Your task to perform on an android device: Search for sushi restaurants on Maps Image 0: 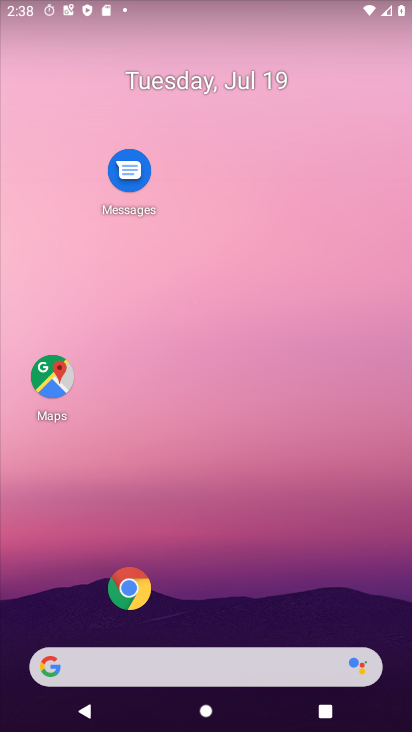
Step 0: click (66, 388)
Your task to perform on an android device: Search for sushi restaurants on Maps Image 1: 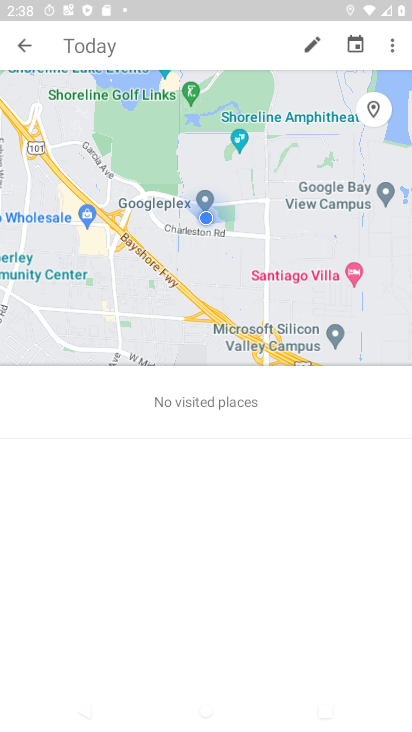
Step 1: click (128, 39)
Your task to perform on an android device: Search for sushi restaurants on Maps Image 2: 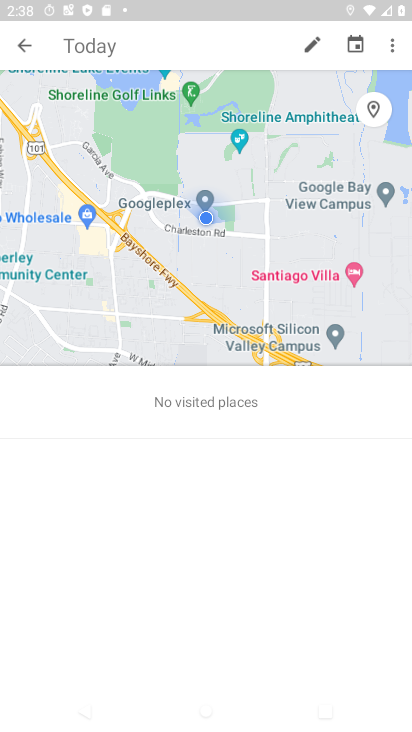
Step 2: click (21, 54)
Your task to perform on an android device: Search for sushi restaurants on Maps Image 3: 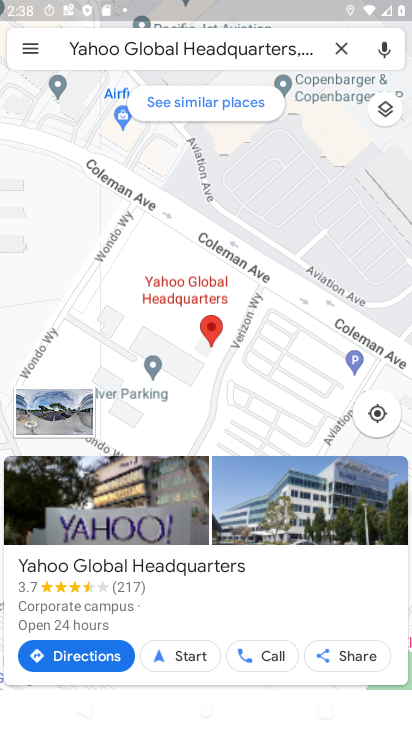
Step 3: click (347, 44)
Your task to perform on an android device: Search for sushi restaurants on Maps Image 4: 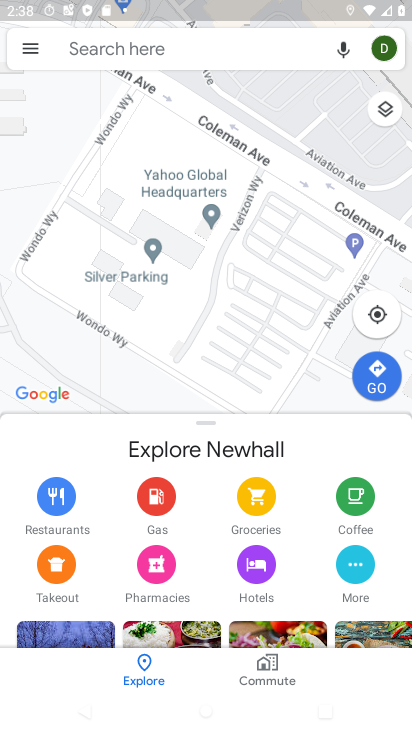
Step 4: click (96, 52)
Your task to perform on an android device: Search for sushi restaurants on Maps Image 5: 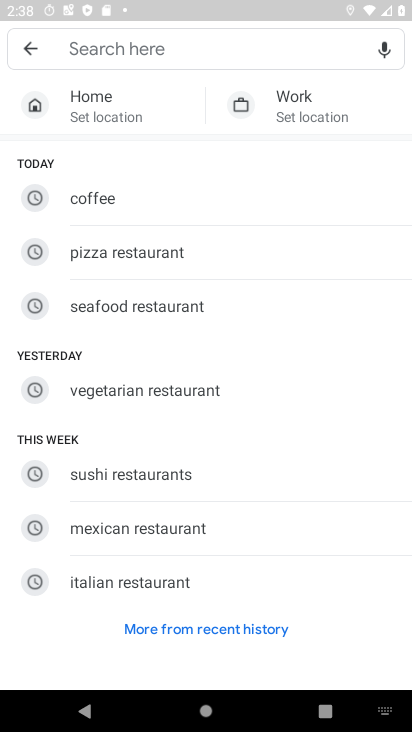
Step 5: click (127, 471)
Your task to perform on an android device: Search for sushi restaurants on Maps Image 6: 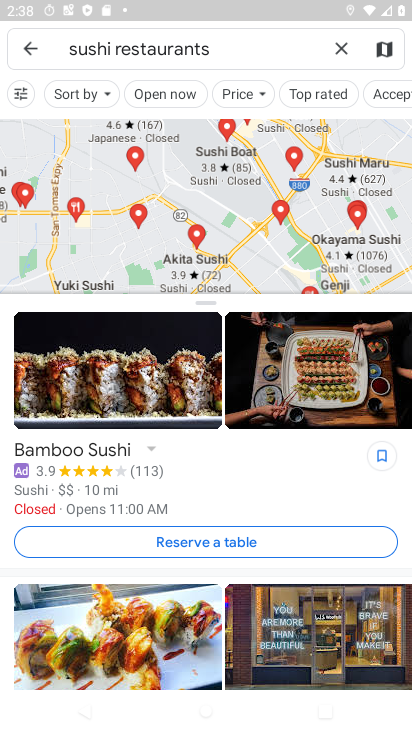
Step 6: task complete